Your task to perform on an android device: Search for flights from Mexico city to Boston Image 0: 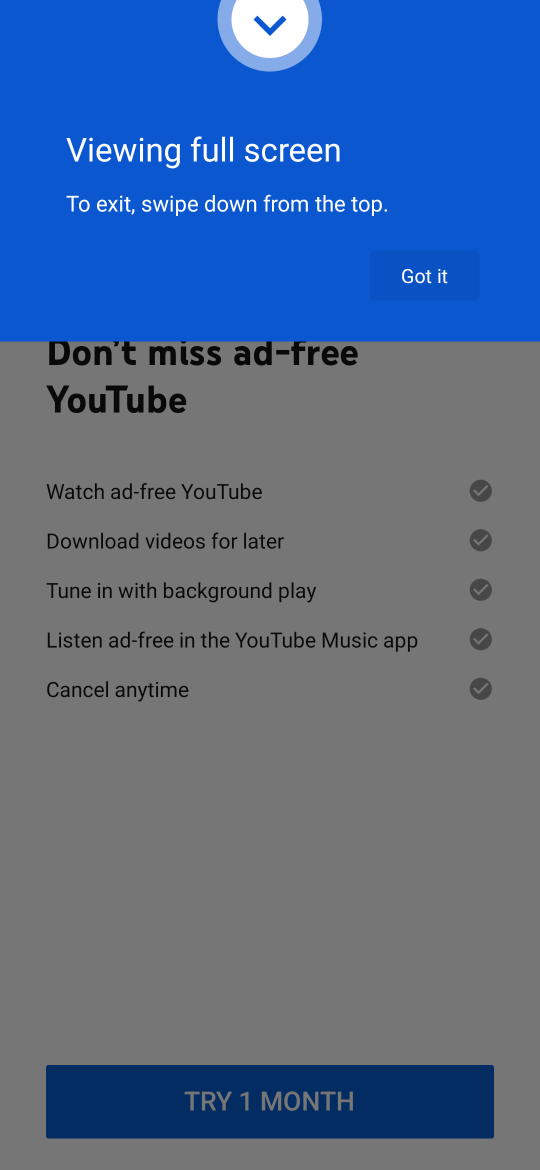
Step 0: press home button
Your task to perform on an android device: Search for flights from Mexico city to Boston Image 1: 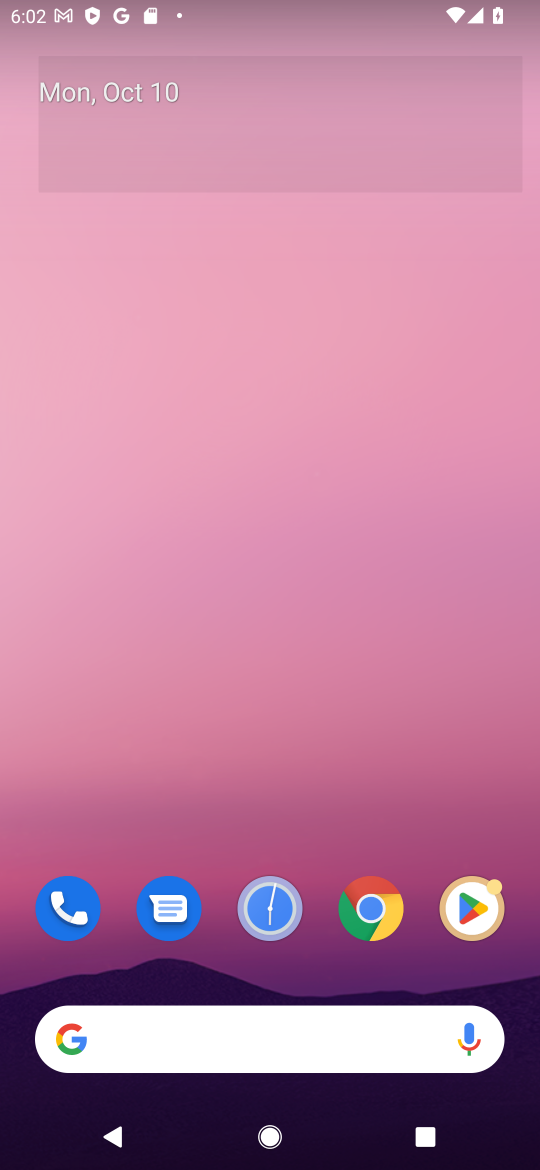
Step 1: drag from (299, 972) to (299, 36)
Your task to perform on an android device: Search for flights from Mexico city to Boston Image 2: 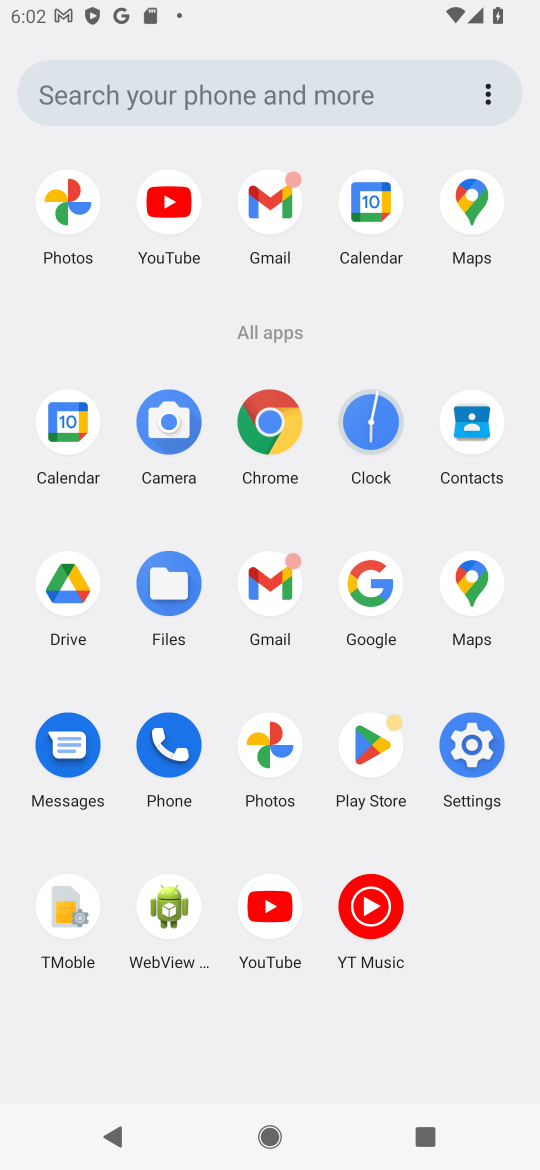
Step 2: click (279, 425)
Your task to perform on an android device: Search for flights from Mexico city to Boston Image 3: 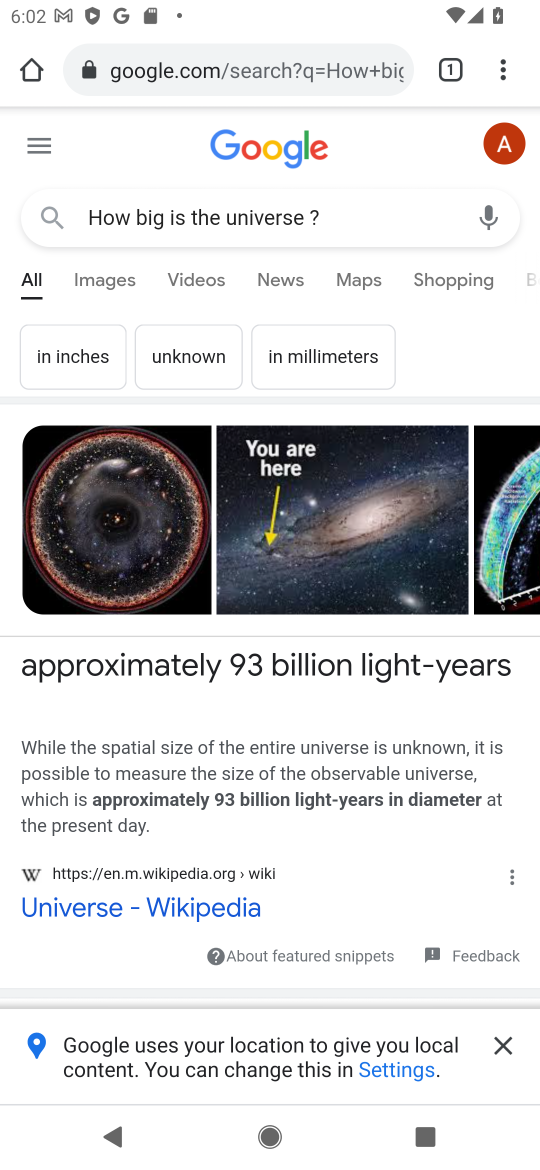
Step 3: click (198, 62)
Your task to perform on an android device: Search for flights from Mexico city to Boston Image 4: 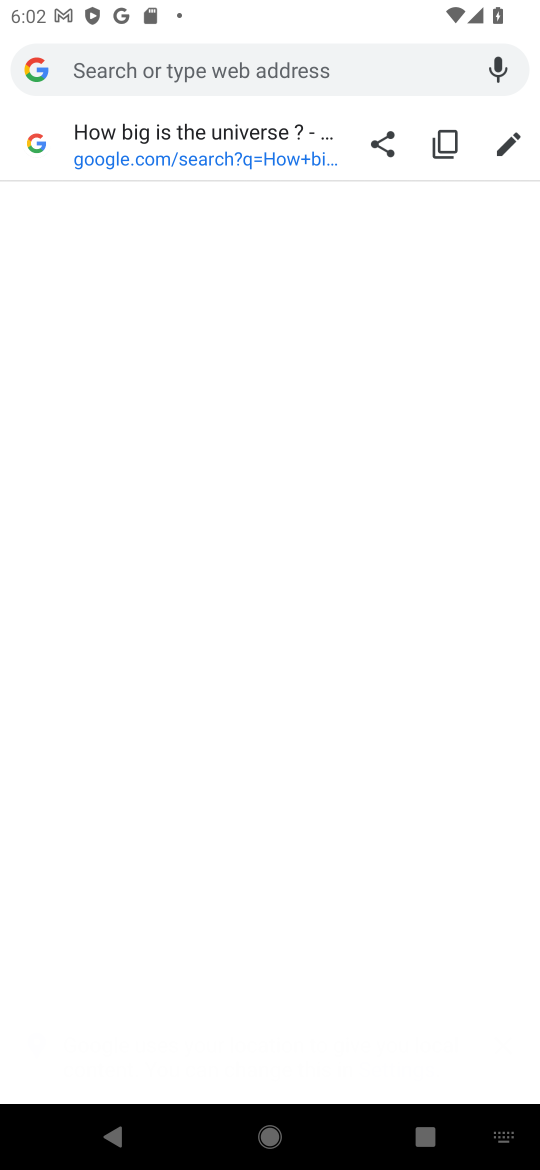
Step 4: type "flights from Mexico to Boston"
Your task to perform on an android device: Search for flights from Mexico city to Boston Image 5: 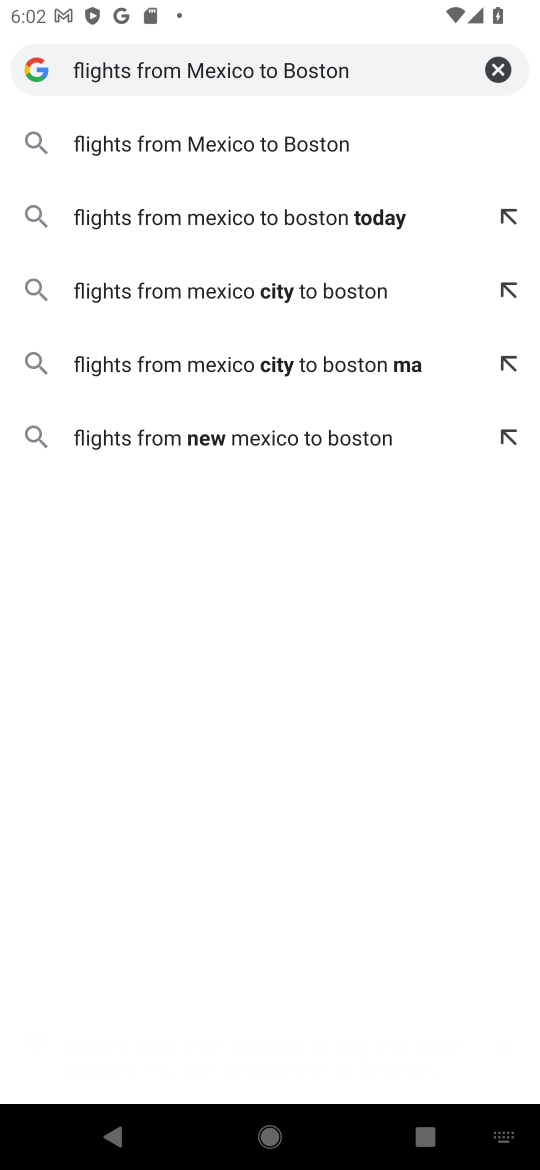
Step 5: press enter
Your task to perform on an android device: Search for flights from Mexico city to Boston Image 6: 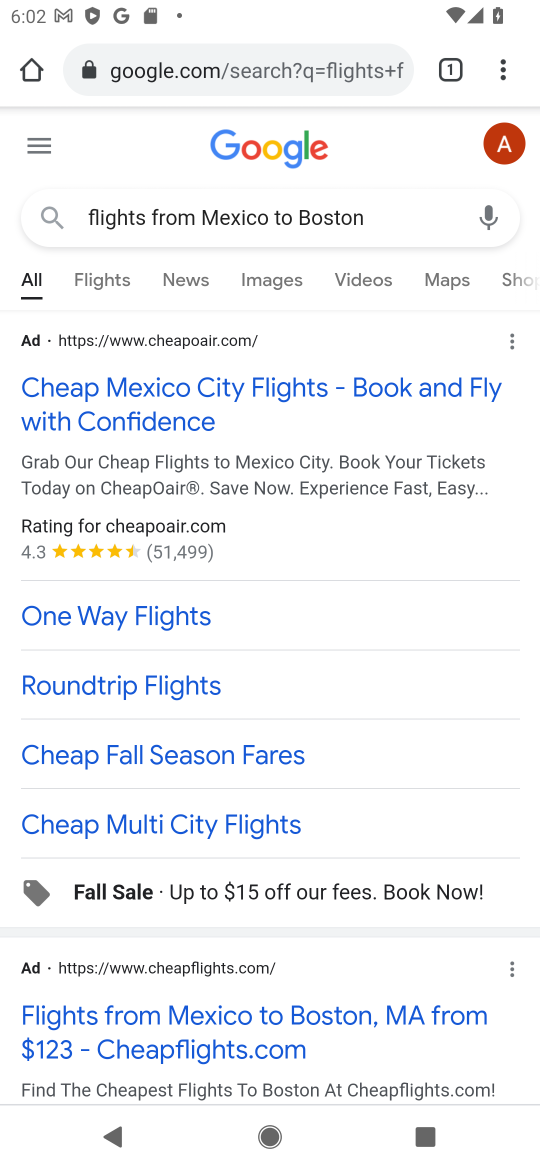
Step 6: task complete